Your task to perform on an android device: set the stopwatch Image 0: 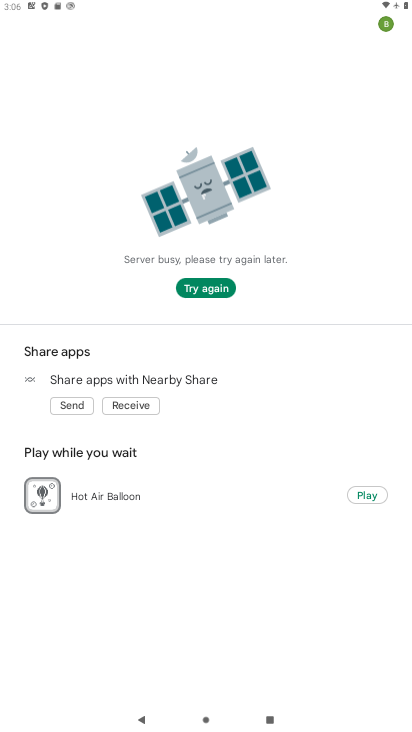
Step 0: press home button
Your task to perform on an android device: set the stopwatch Image 1: 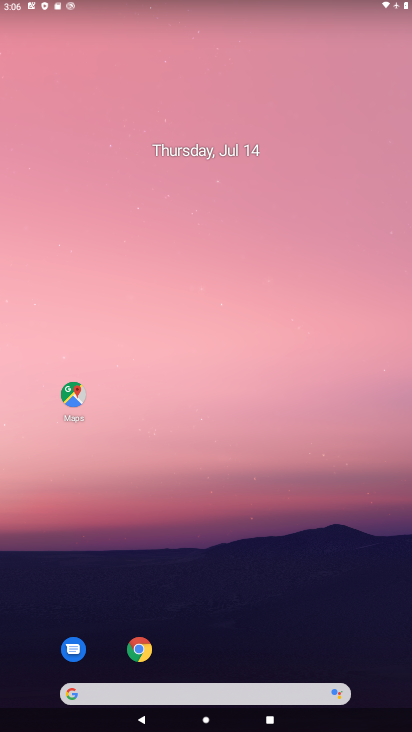
Step 1: drag from (221, 615) to (204, 49)
Your task to perform on an android device: set the stopwatch Image 2: 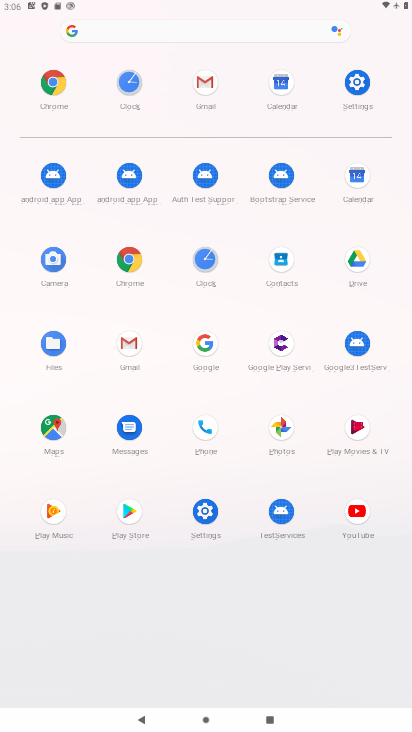
Step 2: click (200, 273)
Your task to perform on an android device: set the stopwatch Image 3: 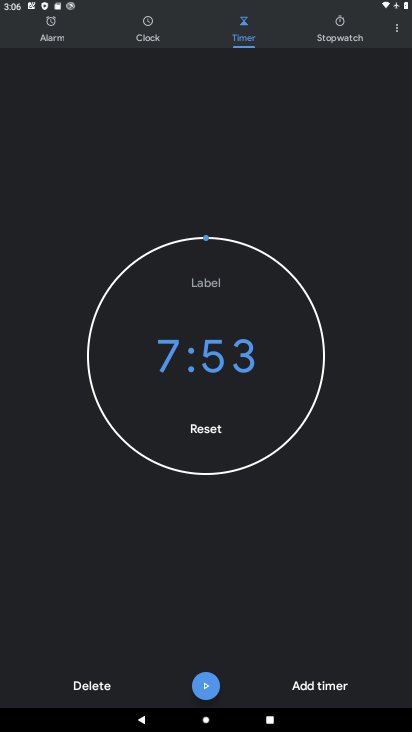
Step 3: click (347, 35)
Your task to perform on an android device: set the stopwatch Image 4: 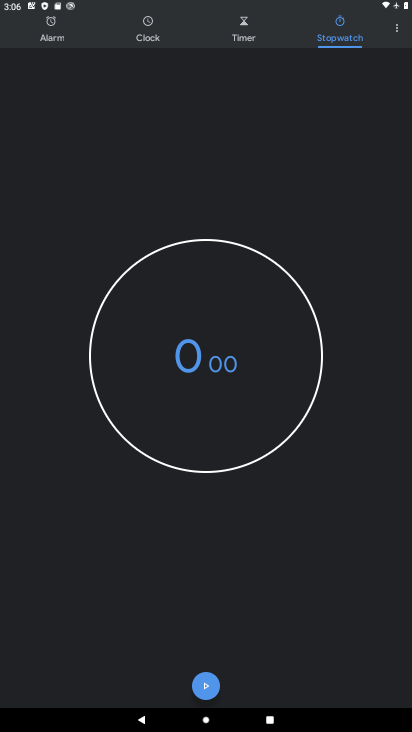
Step 4: click (199, 695)
Your task to perform on an android device: set the stopwatch Image 5: 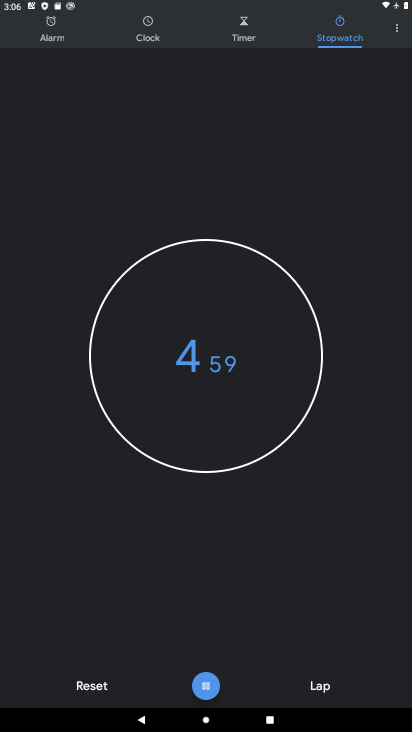
Step 5: task complete